Your task to perform on an android device: Search for seafood restaurants on Google Maps Image 0: 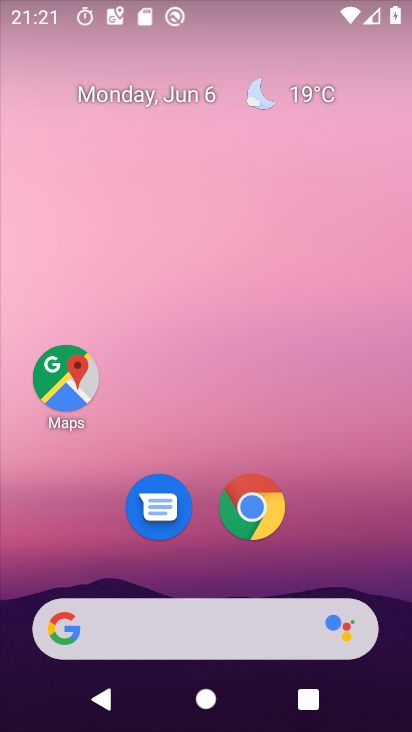
Step 0: click (65, 402)
Your task to perform on an android device: Search for seafood restaurants on Google Maps Image 1: 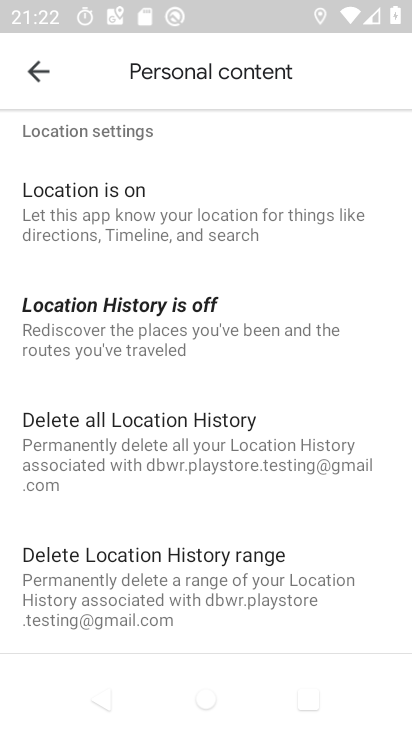
Step 1: click (29, 70)
Your task to perform on an android device: Search for seafood restaurants on Google Maps Image 2: 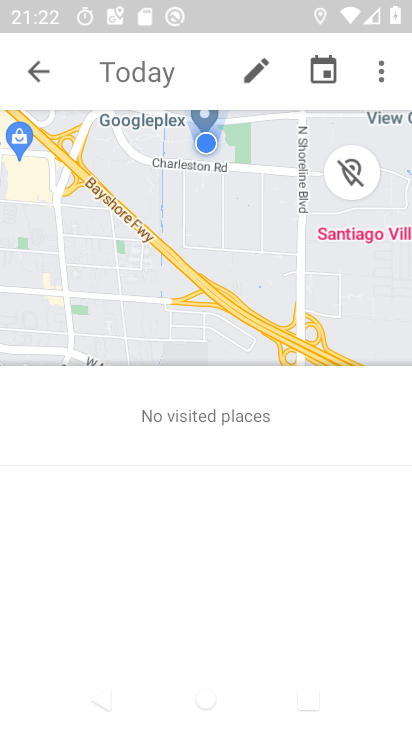
Step 2: click (29, 70)
Your task to perform on an android device: Search for seafood restaurants on Google Maps Image 3: 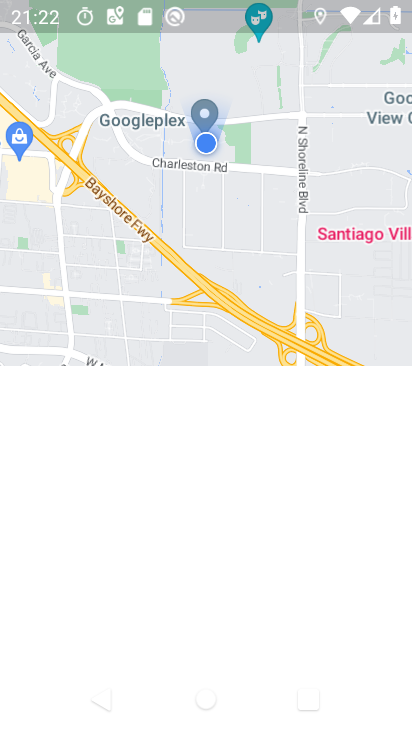
Step 3: click (161, 80)
Your task to perform on an android device: Search for seafood restaurants on Google Maps Image 4: 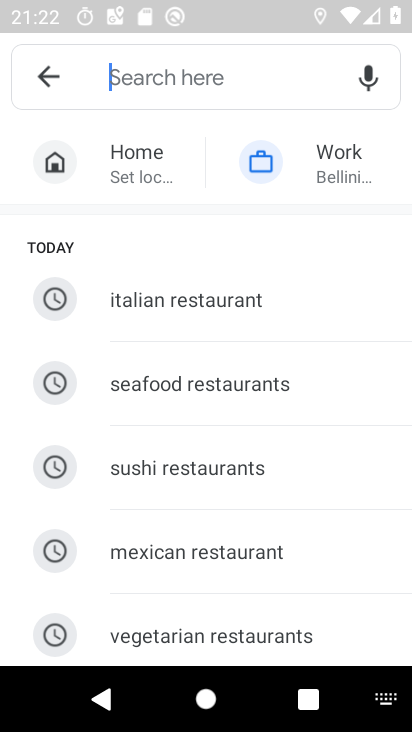
Step 4: type " seafood restaurants "
Your task to perform on an android device: Search for seafood restaurants on Google Maps Image 5: 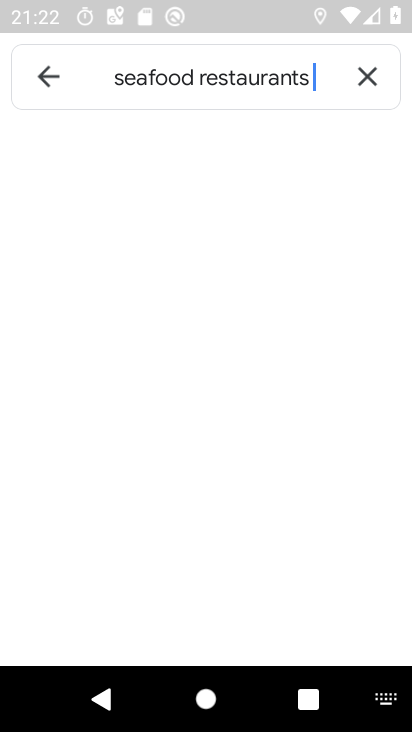
Step 5: type ""
Your task to perform on an android device: Search for seafood restaurants on Google Maps Image 6: 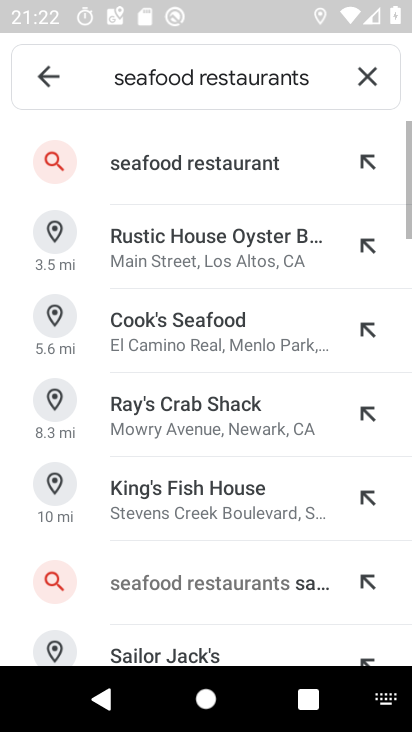
Step 6: click (195, 176)
Your task to perform on an android device: Search for seafood restaurants on Google Maps Image 7: 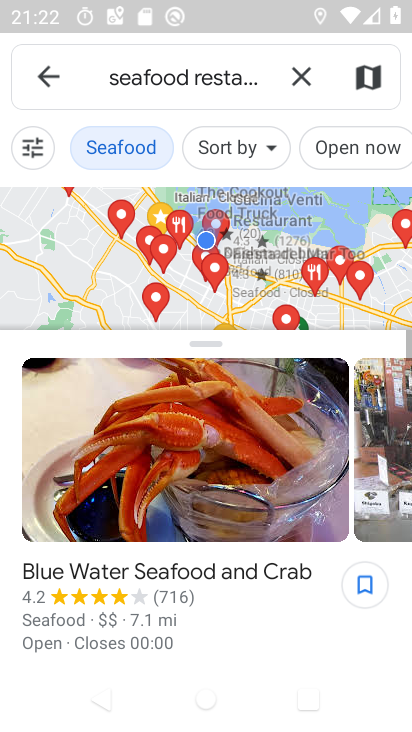
Step 7: task complete